Your task to perform on an android device: turn pop-ups off in chrome Image 0: 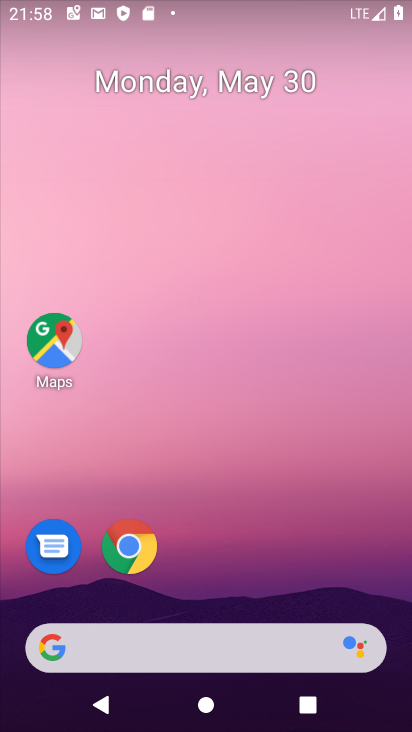
Step 0: drag from (275, 587) to (262, 313)
Your task to perform on an android device: turn pop-ups off in chrome Image 1: 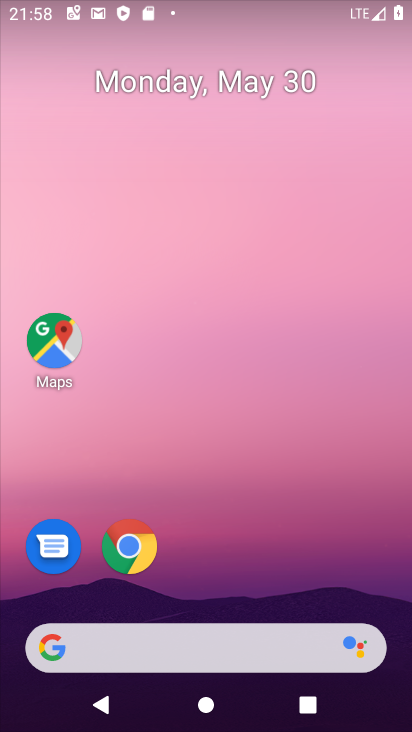
Step 1: drag from (314, 554) to (292, 71)
Your task to perform on an android device: turn pop-ups off in chrome Image 2: 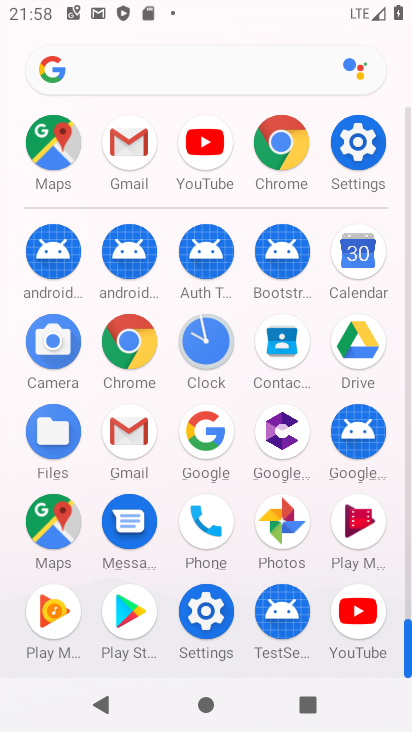
Step 2: click (277, 149)
Your task to perform on an android device: turn pop-ups off in chrome Image 3: 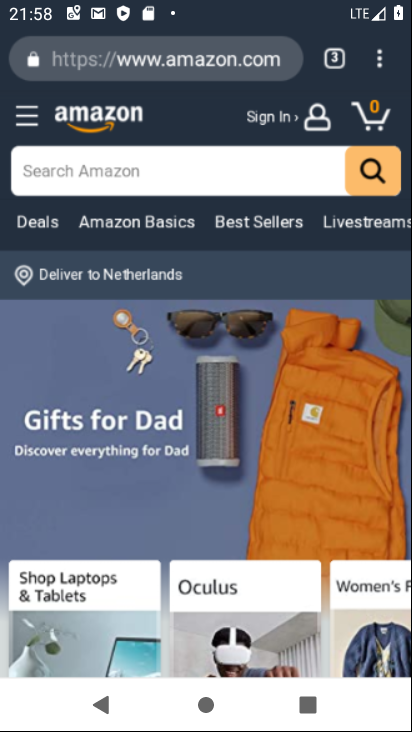
Step 3: drag from (382, 68) to (197, 570)
Your task to perform on an android device: turn pop-ups off in chrome Image 4: 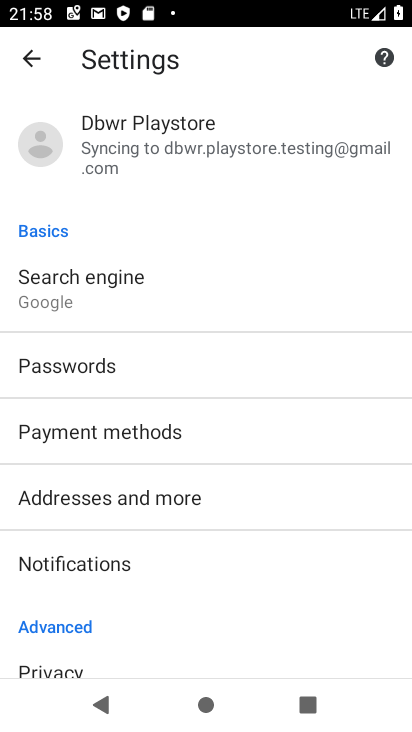
Step 4: drag from (230, 607) to (266, 348)
Your task to perform on an android device: turn pop-ups off in chrome Image 5: 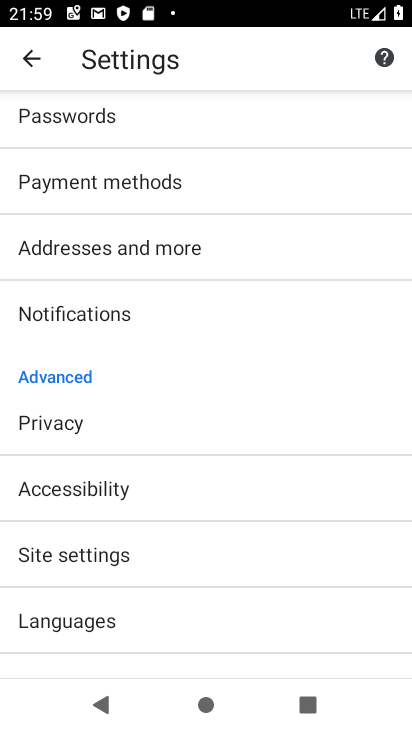
Step 5: click (189, 564)
Your task to perform on an android device: turn pop-ups off in chrome Image 6: 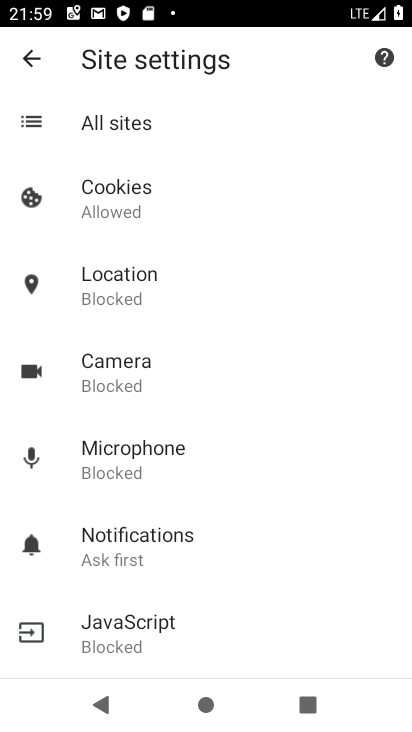
Step 6: drag from (223, 580) to (268, 379)
Your task to perform on an android device: turn pop-ups off in chrome Image 7: 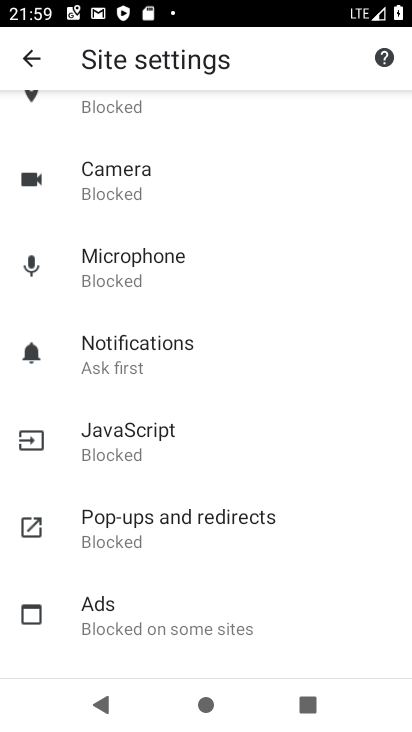
Step 7: click (232, 513)
Your task to perform on an android device: turn pop-ups off in chrome Image 8: 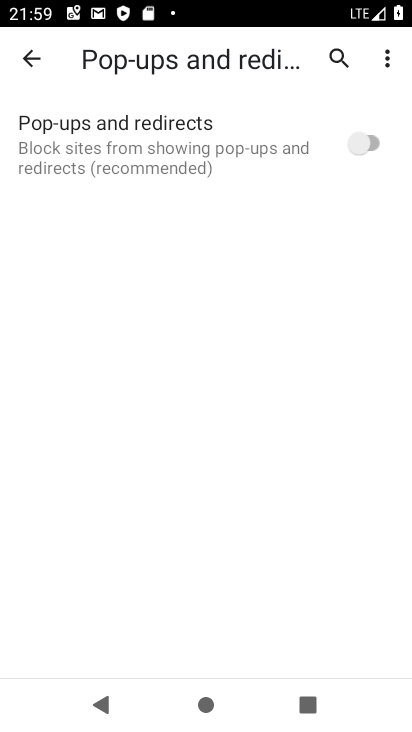
Step 8: task complete